Your task to perform on an android device: Open eBay Image 0: 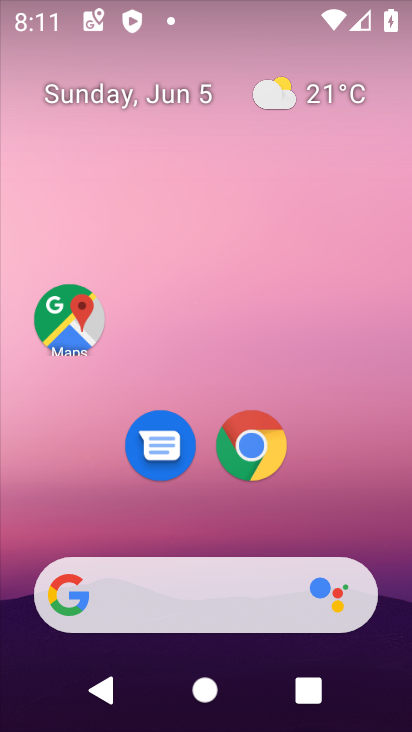
Step 0: click (240, 612)
Your task to perform on an android device: Open eBay Image 1: 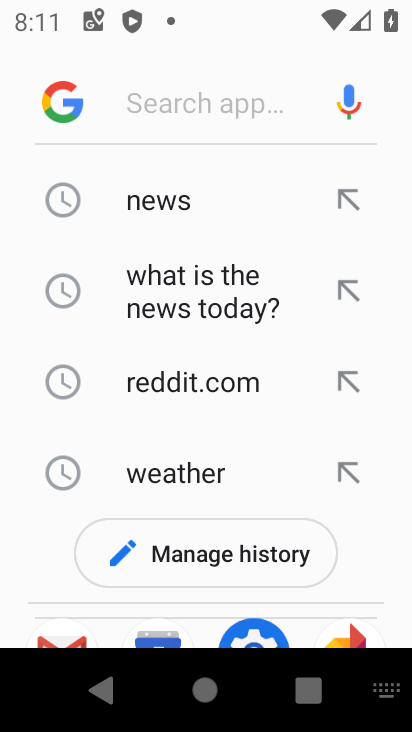
Step 1: type "eBay"
Your task to perform on an android device: Open eBay Image 2: 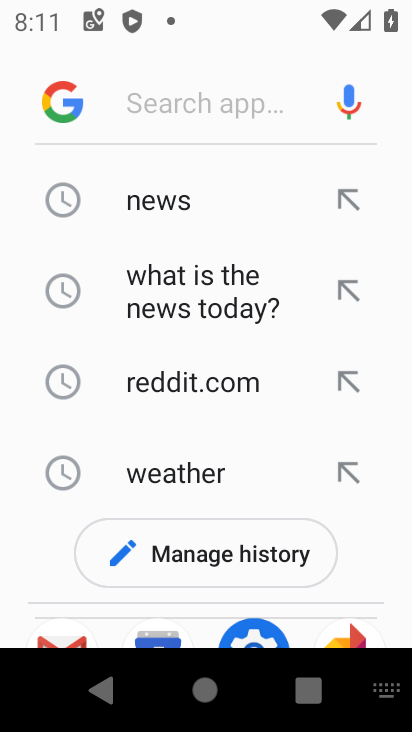
Step 2: click (177, 119)
Your task to perform on an android device: Open eBay Image 3: 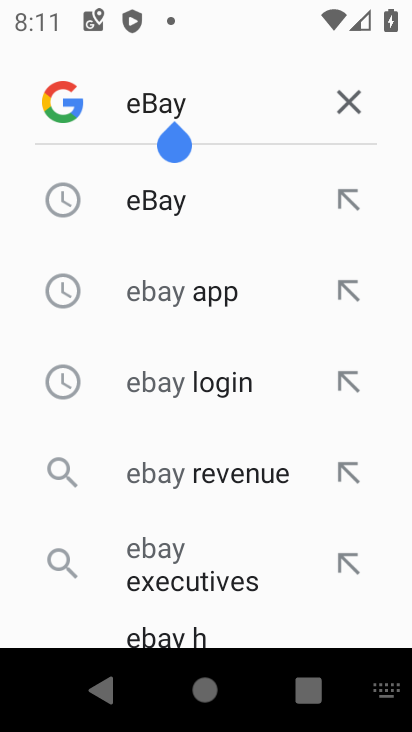
Step 3: click (178, 192)
Your task to perform on an android device: Open eBay Image 4: 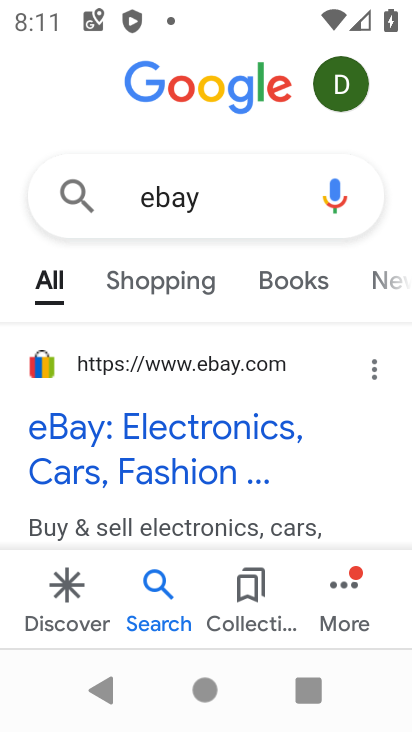
Step 4: click (102, 434)
Your task to perform on an android device: Open eBay Image 5: 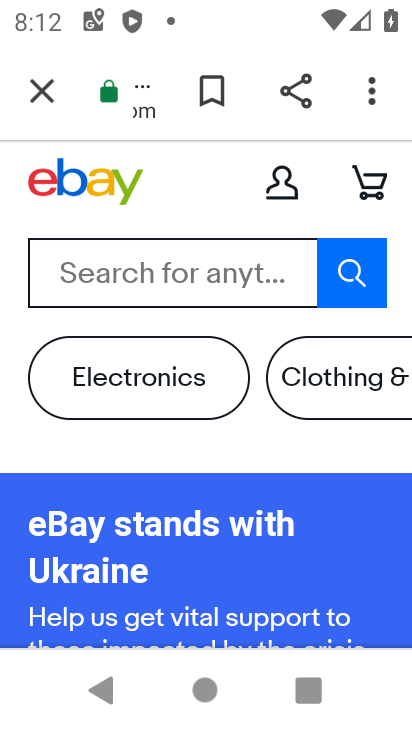
Step 5: task complete